Your task to perform on an android device: Open the calendar app, open the side menu, and click the "Day" option Image 0: 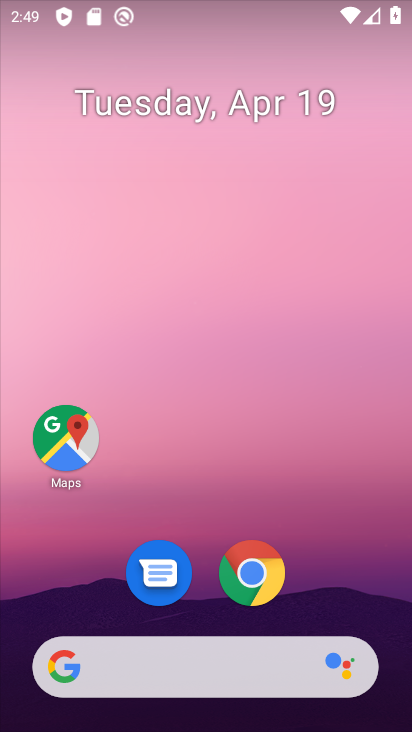
Step 0: drag from (338, 516) to (365, 29)
Your task to perform on an android device: Open the calendar app, open the side menu, and click the "Day" option Image 1: 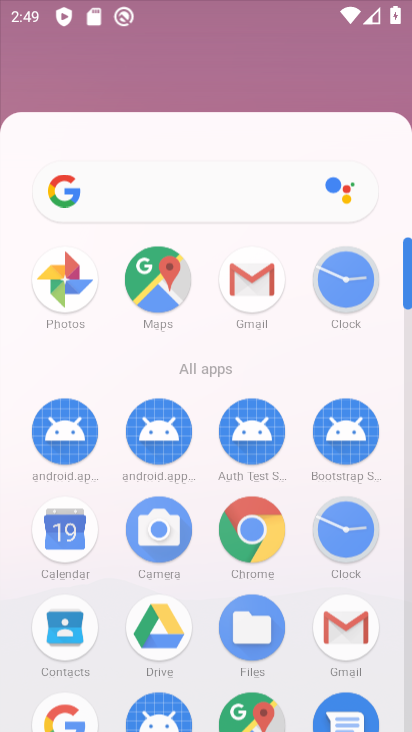
Step 1: drag from (323, 416) to (352, 120)
Your task to perform on an android device: Open the calendar app, open the side menu, and click the "Day" option Image 2: 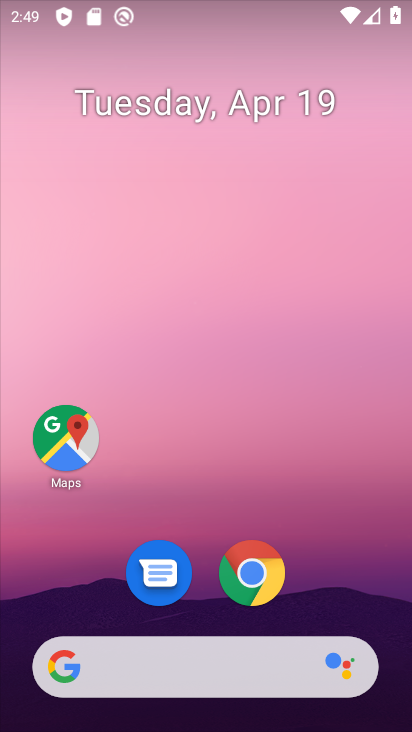
Step 2: drag from (315, 521) to (333, 140)
Your task to perform on an android device: Open the calendar app, open the side menu, and click the "Day" option Image 3: 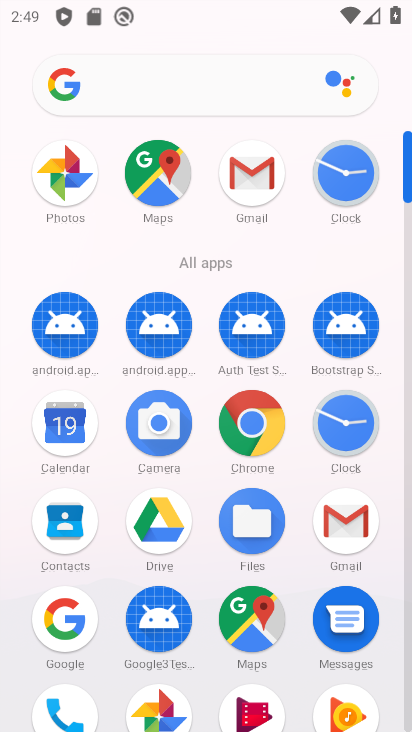
Step 3: click (70, 447)
Your task to perform on an android device: Open the calendar app, open the side menu, and click the "Day" option Image 4: 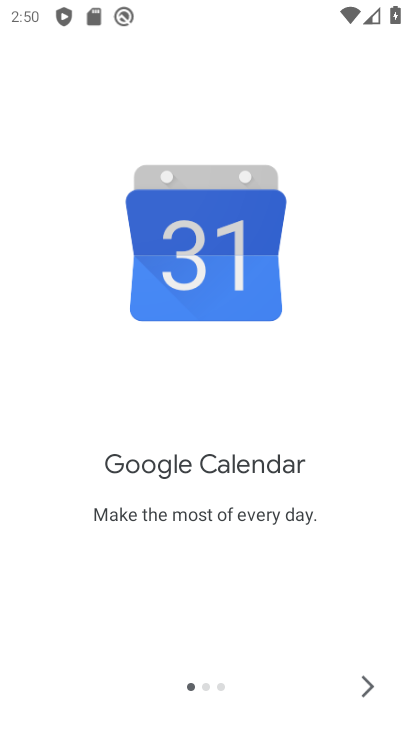
Step 4: click (368, 684)
Your task to perform on an android device: Open the calendar app, open the side menu, and click the "Day" option Image 5: 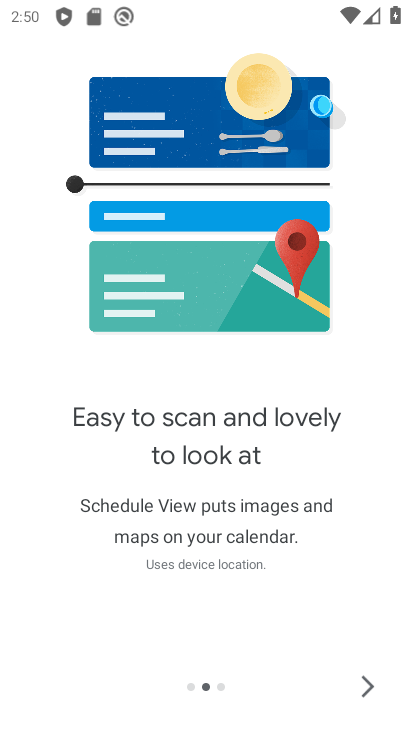
Step 5: click (360, 691)
Your task to perform on an android device: Open the calendar app, open the side menu, and click the "Day" option Image 6: 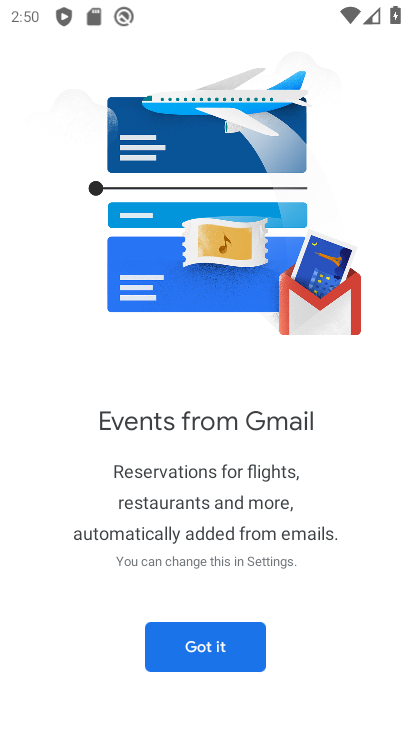
Step 6: click (250, 636)
Your task to perform on an android device: Open the calendar app, open the side menu, and click the "Day" option Image 7: 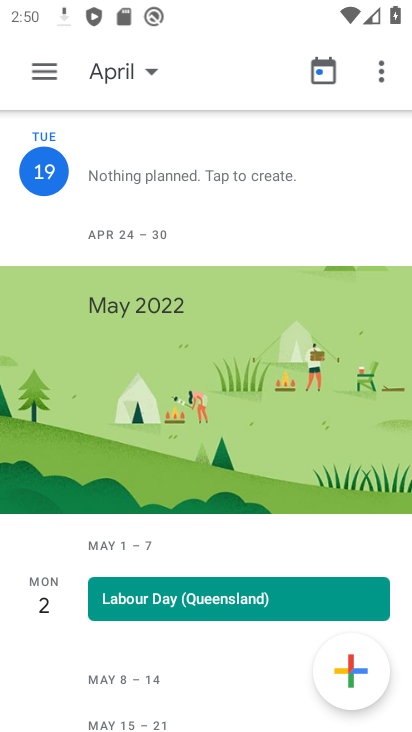
Step 7: click (50, 69)
Your task to perform on an android device: Open the calendar app, open the side menu, and click the "Day" option Image 8: 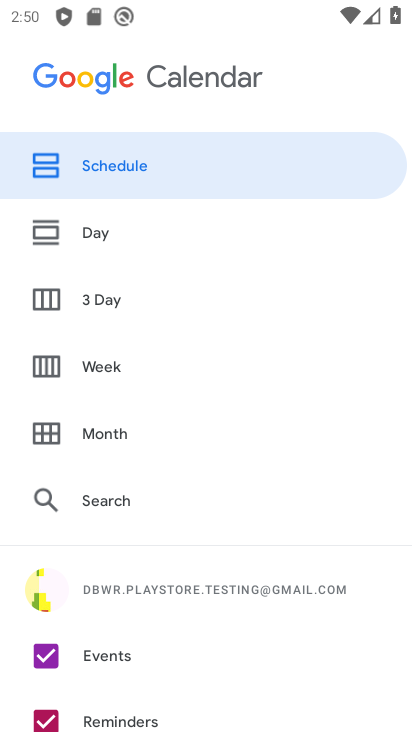
Step 8: click (87, 238)
Your task to perform on an android device: Open the calendar app, open the side menu, and click the "Day" option Image 9: 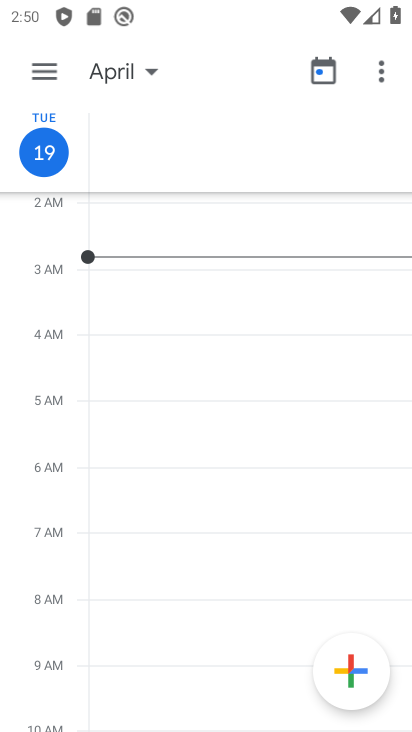
Step 9: task complete